Your task to perform on an android device: turn notification dots off Image 0: 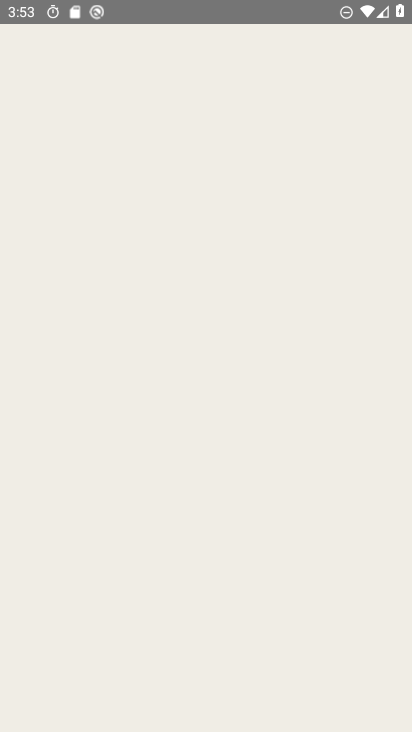
Step 0: drag from (226, 574) to (279, 121)
Your task to perform on an android device: turn notification dots off Image 1: 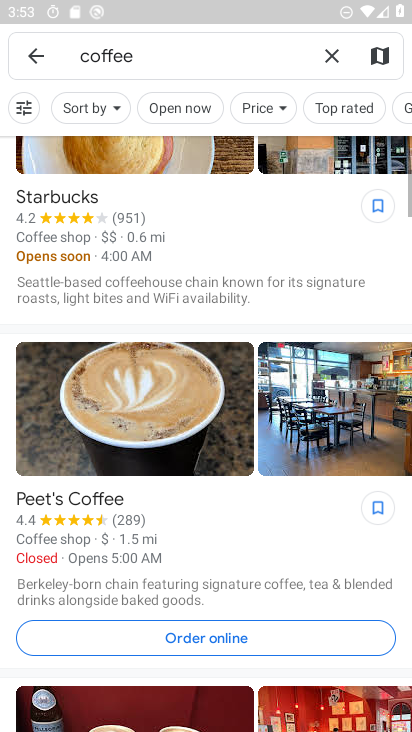
Step 1: press home button
Your task to perform on an android device: turn notification dots off Image 2: 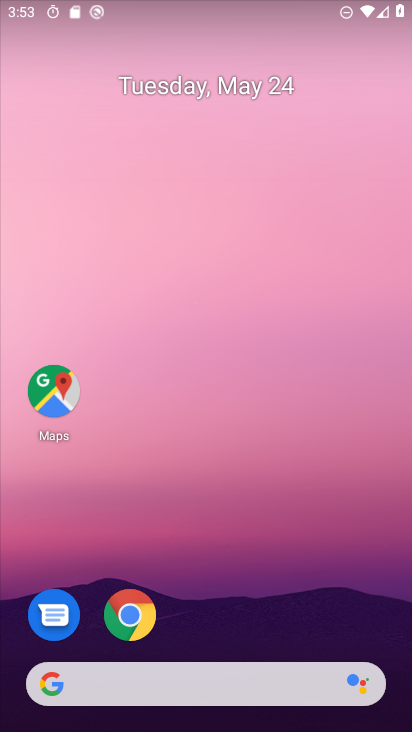
Step 2: drag from (202, 636) to (286, 82)
Your task to perform on an android device: turn notification dots off Image 3: 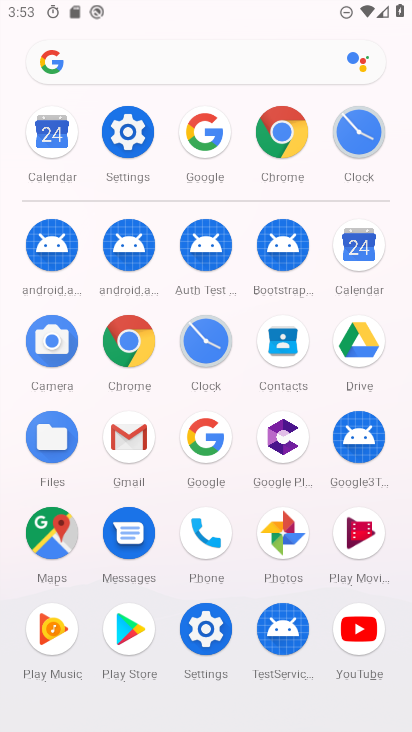
Step 3: click (137, 155)
Your task to perform on an android device: turn notification dots off Image 4: 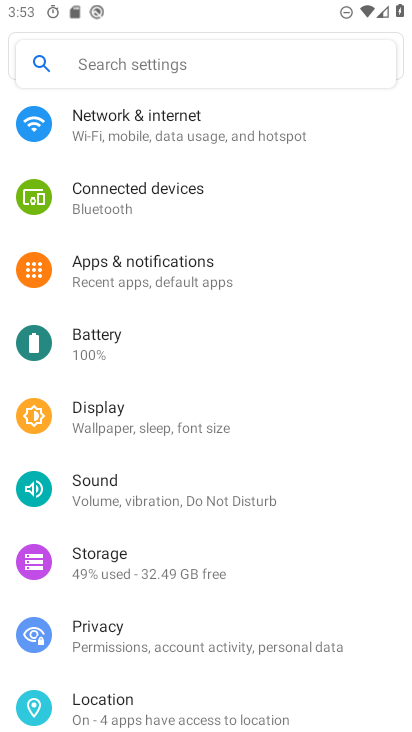
Step 4: click (184, 271)
Your task to perform on an android device: turn notification dots off Image 5: 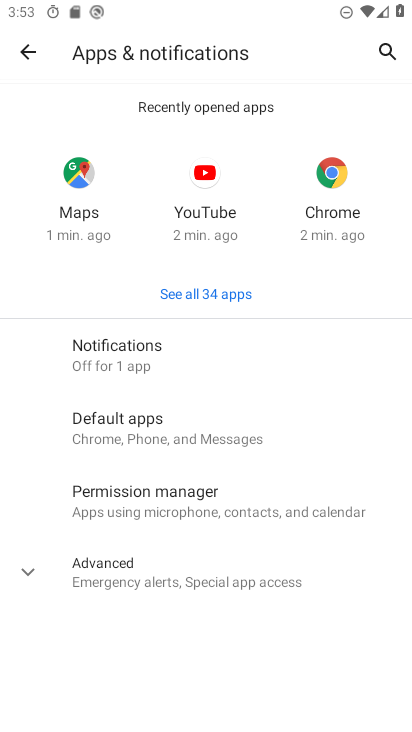
Step 5: click (148, 366)
Your task to perform on an android device: turn notification dots off Image 6: 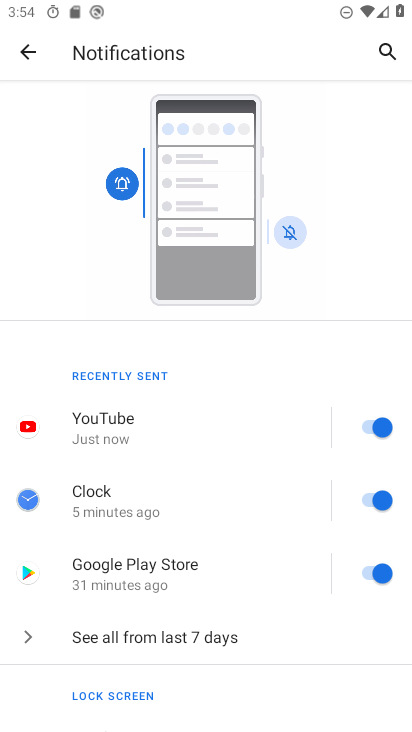
Step 6: drag from (153, 567) to (225, 269)
Your task to perform on an android device: turn notification dots off Image 7: 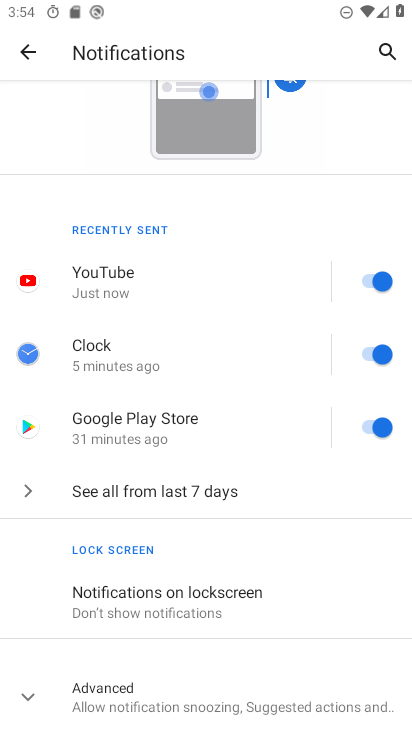
Step 7: click (193, 708)
Your task to perform on an android device: turn notification dots off Image 8: 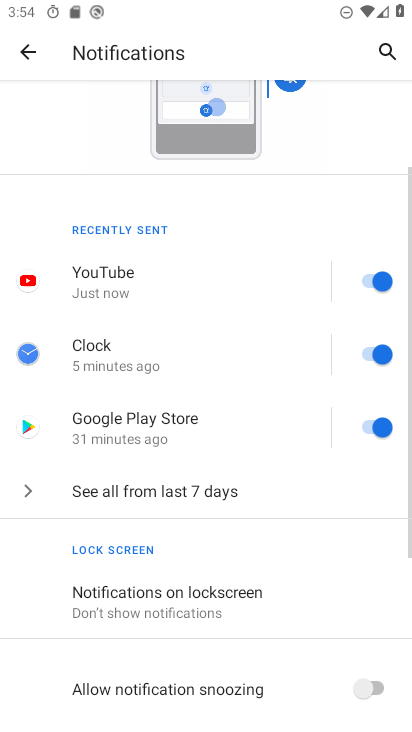
Step 8: drag from (200, 655) to (268, 341)
Your task to perform on an android device: turn notification dots off Image 9: 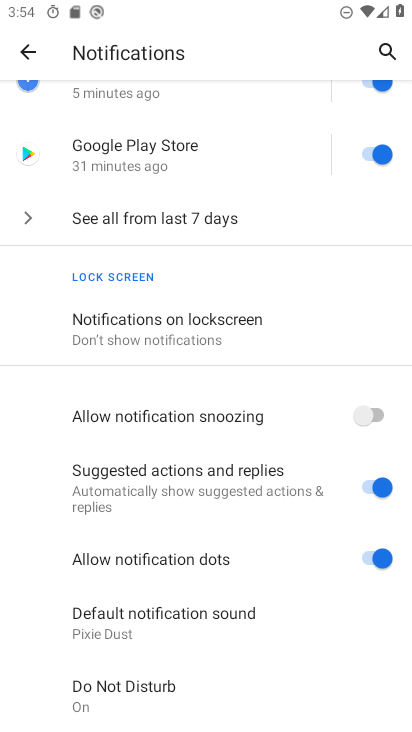
Step 9: click (362, 568)
Your task to perform on an android device: turn notification dots off Image 10: 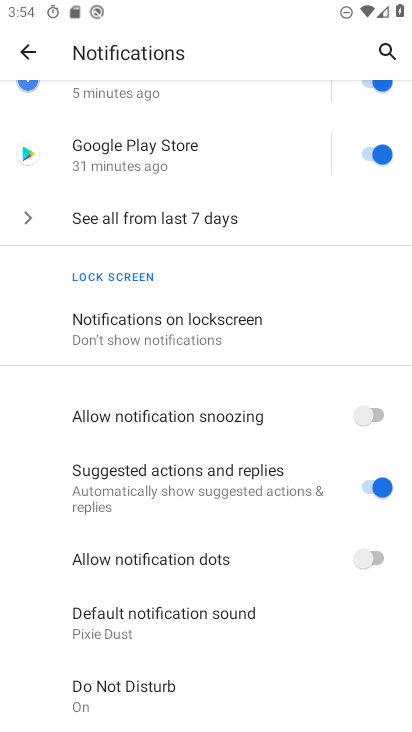
Step 10: task complete